Your task to perform on an android device: Show me the alarms in the clock app Image 0: 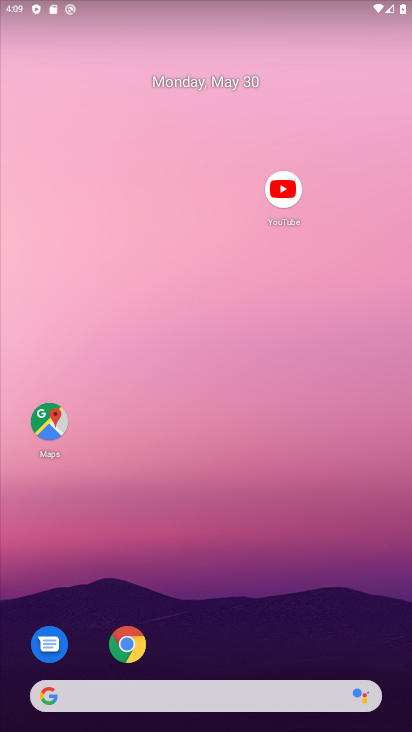
Step 0: drag from (190, 637) to (231, 79)
Your task to perform on an android device: Show me the alarms in the clock app Image 1: 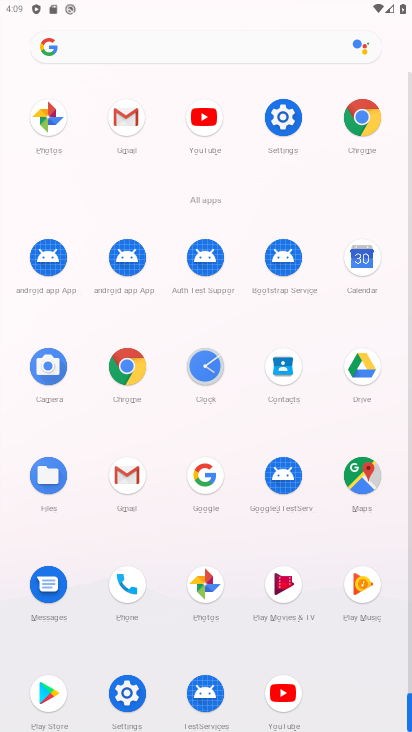
Step 1: click (195, 372)
Your task to perform on an android device: Show me the alarms in the clock app Image 2: 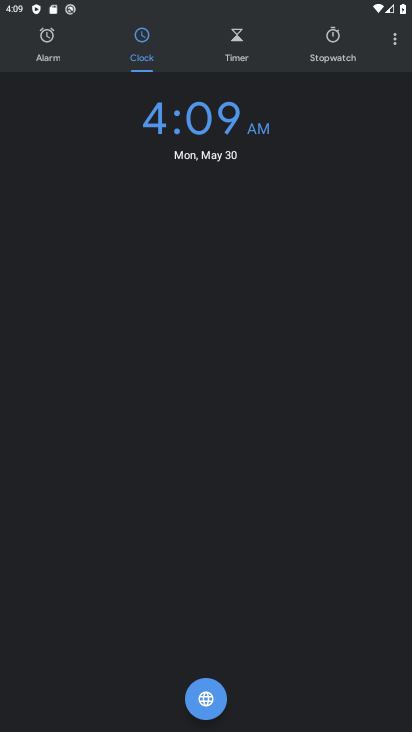
Step 2: click (62, 38)
Your task to perform on an android device: Show me the alarms in the clock app Image 3: 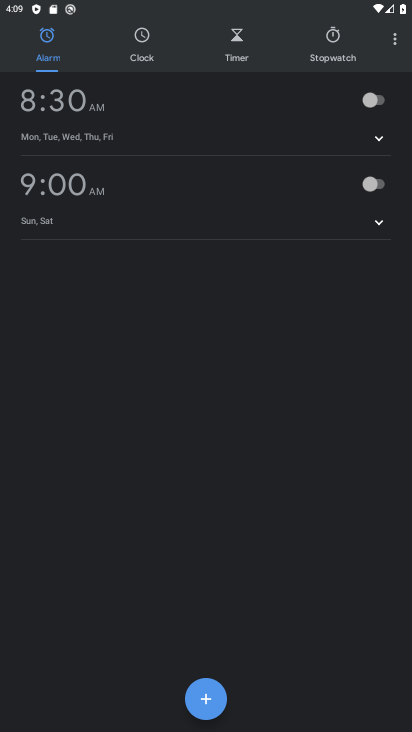
Step 3: task complete